Your task to perform on an android device: toggle sleep mode Image 0: 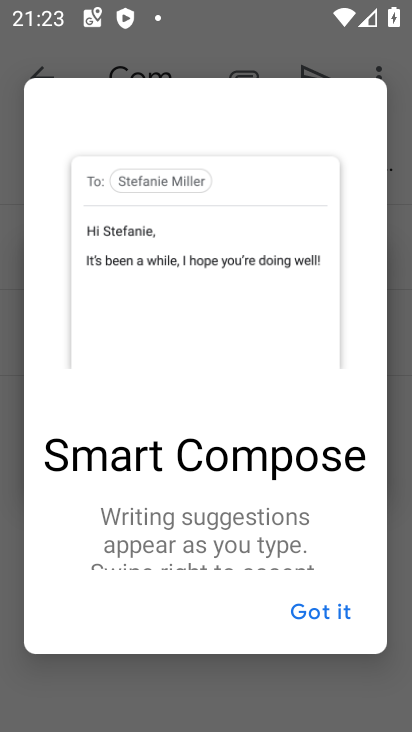
Step 0: press home button
Your task to perform on an android device: toggle sleep mode Image 1: 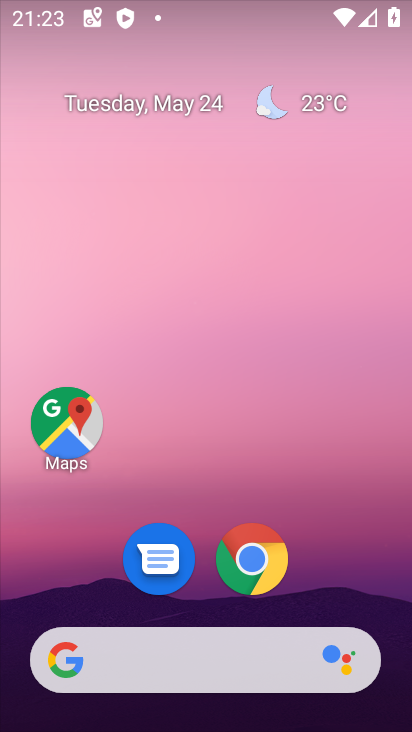
Step 1: drag from (330, 375) to (319, 131)
Your task to perform on an android device: toggle sleep mode Image 2: 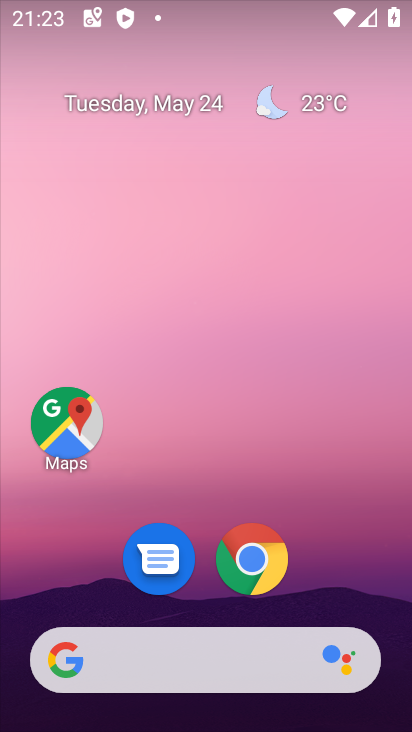
Step 2: drag from (349, 528) to (336, 152)
Your task to perform on an android device: toggle sleep mode Image 3: 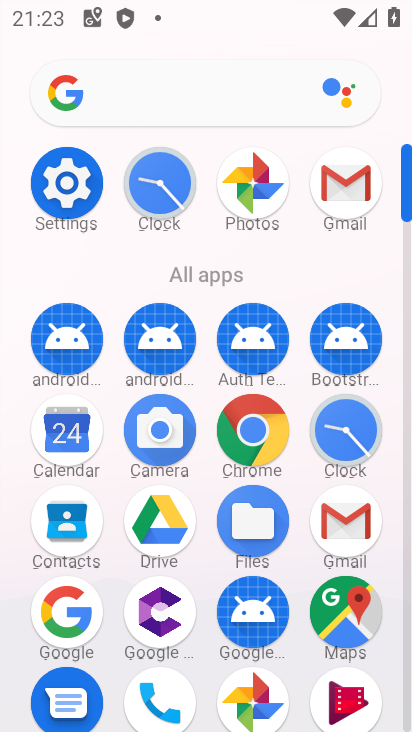
Step 3: click (69, 212)
Your task to perform on an android device: toggle sleep mode Image 4: 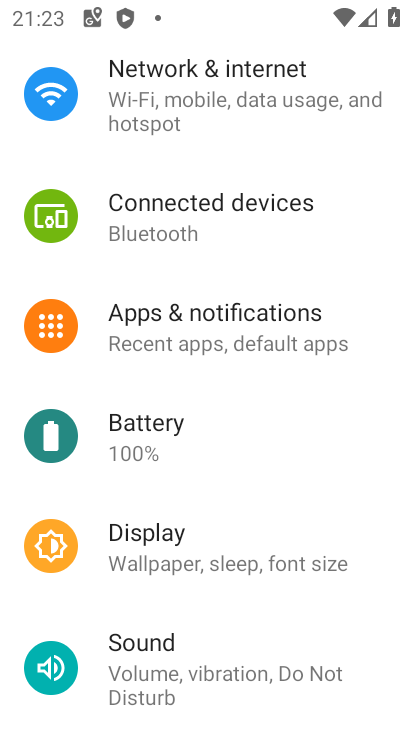
Step 4: click (218, 552)
Your task to perform on an android device: toggle sleep mode Image 5: 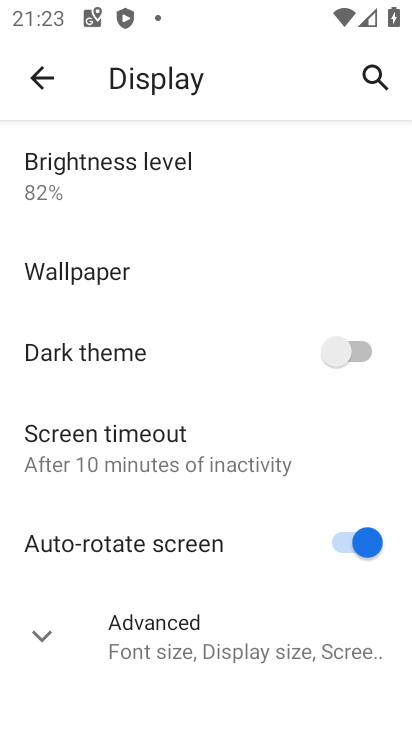
Step 5: click (159, 434)
Your task to perform on an android device: toggle sleep mode Image 6: 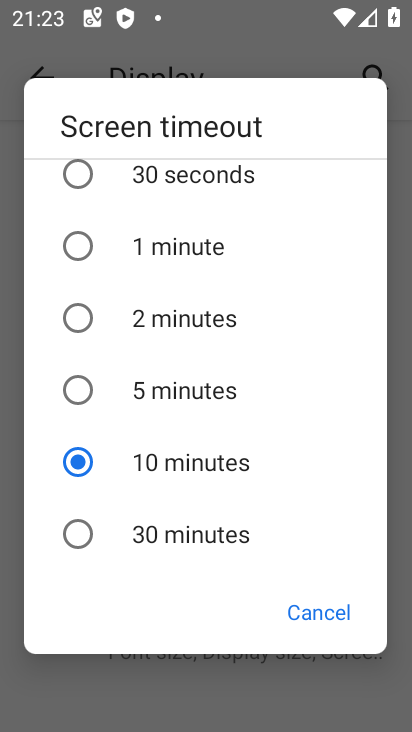
Step 6: click (151, 531)
Your task to perform on an android device: toggle sleep mode Image 7: 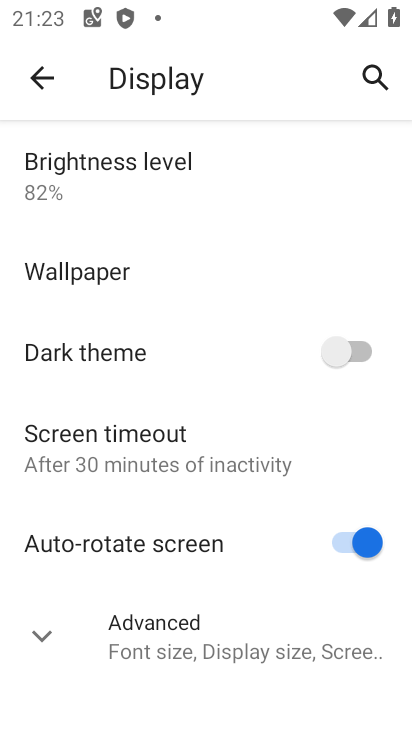
Step 7: task complete